Your task to perform on an android device: Open CNN.com Image 0: 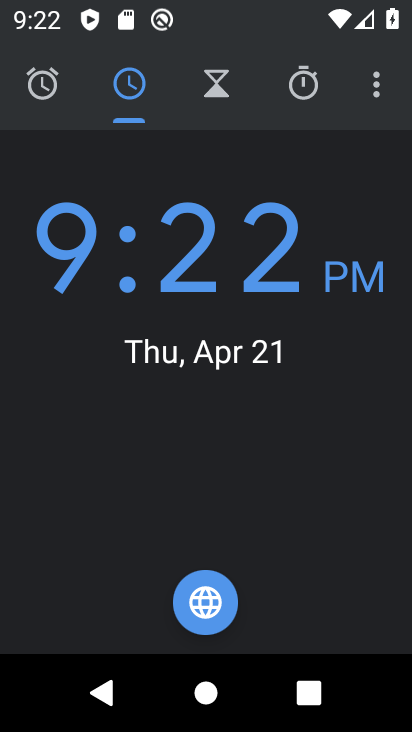
Step 0: press home button
Your task to perform on an android device: Open CNN.com Image 1: 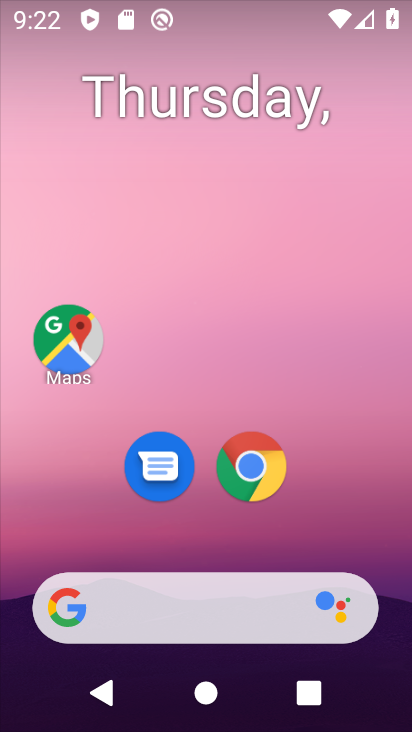
Step 1: drag from (373, 498) to (370, 146)
Your task to perform on an android device: Open CNN.com Image 2: 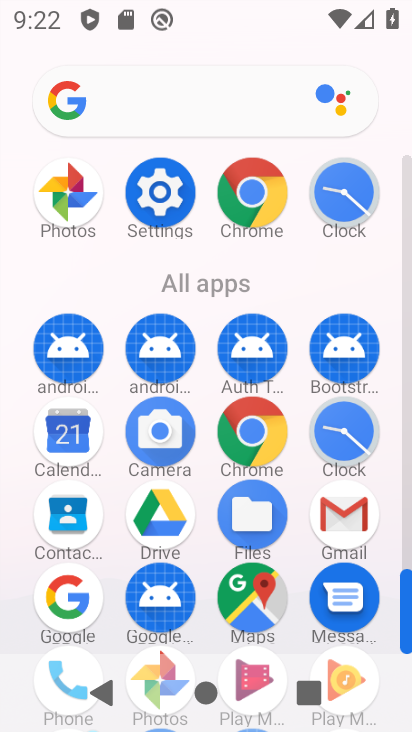
Step 2: drag from (384, 554) to (393, 220)
Your task to perform on an android device: Open CNN.com Image 3: 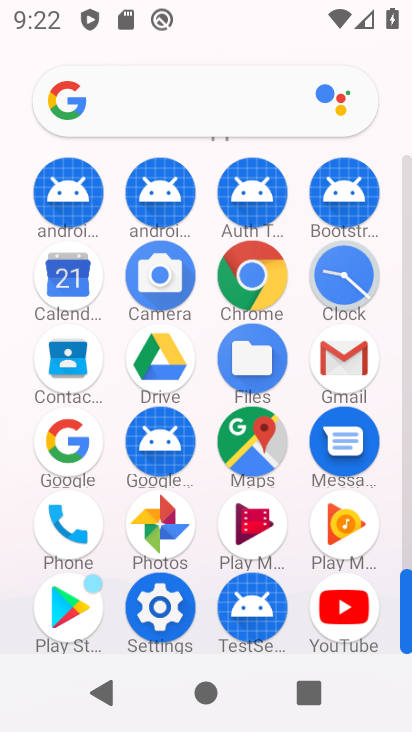
Step 3: click (265, 293)
Your task to perform on an android device: Open CNN.com Image 4: 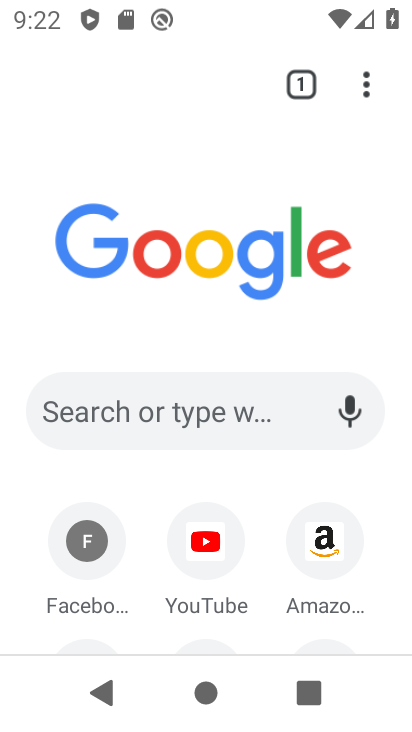
Step 4: click (229, 425)
Your task to perform on an android device: Open CNN.com Image 5: 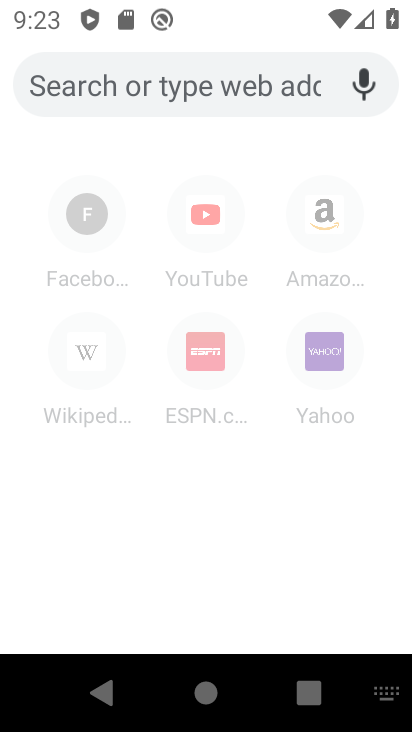
Step 5: type "cnn.com"
Your task to perform on an android device: Open CNN.com Image 6: 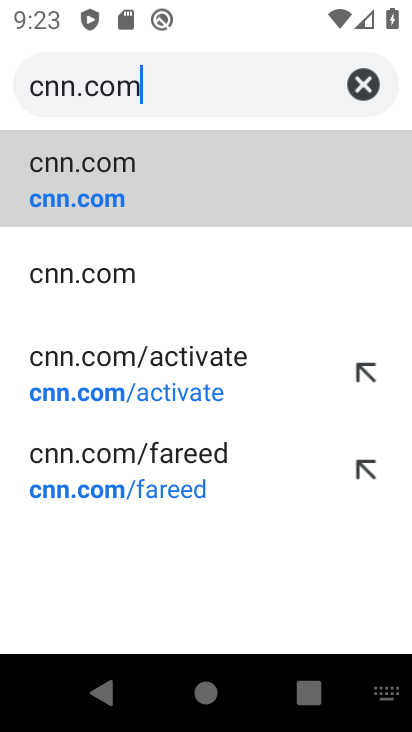
Step 6: click (46, 192)
Your task to perform on an android device: Open CNN.com Image 7: 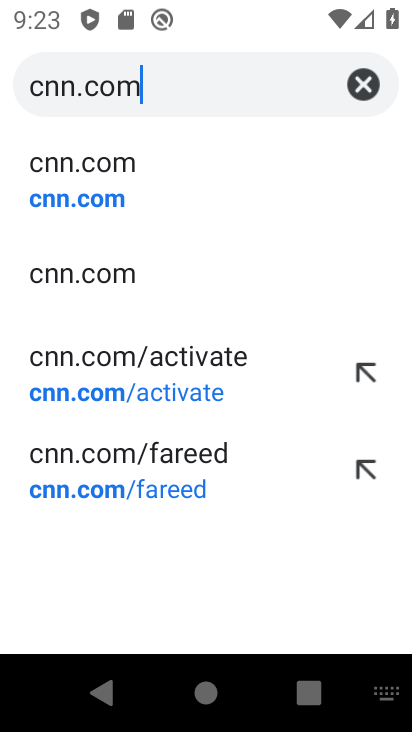
Step 7: click (55, 198)
Your task to perform on an android device: Open CNN.com Image 8: 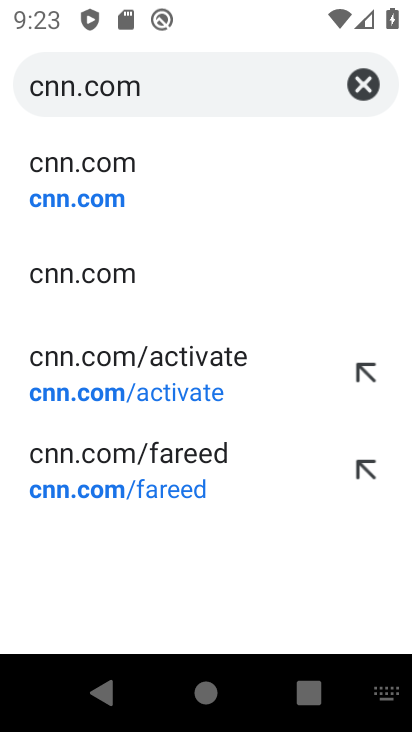
Step 8: click (76, 188)
Your task to perform on an android device: Open CNN.com Image 9: 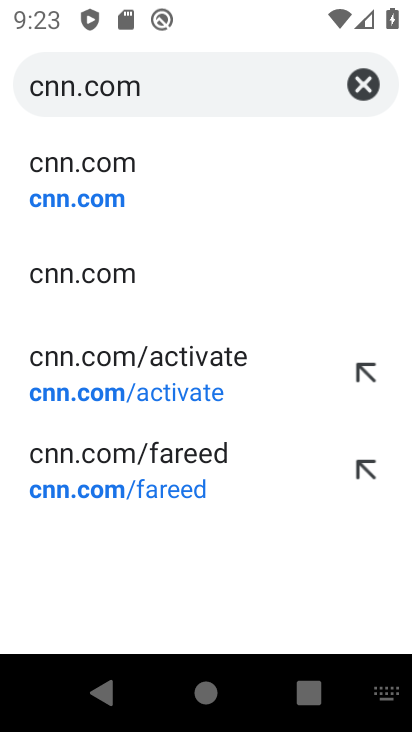
Step 9: click (105, 161)
Your task to perform on an android device: Open CNN.com Image 10: 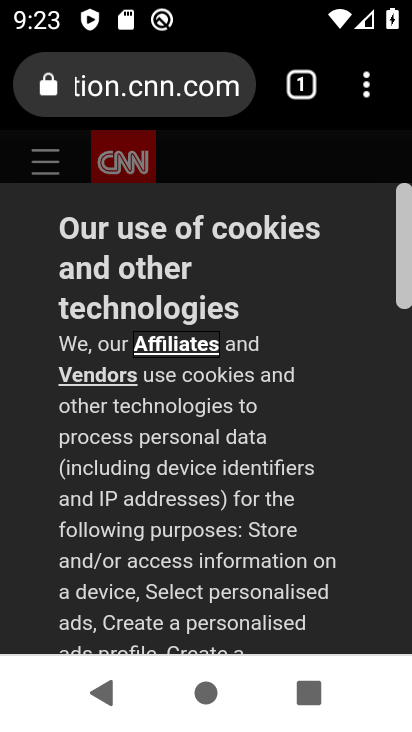
Step 10: task complete